Your task to perform on an android device: delete browsing data in the chrome app Image 0: 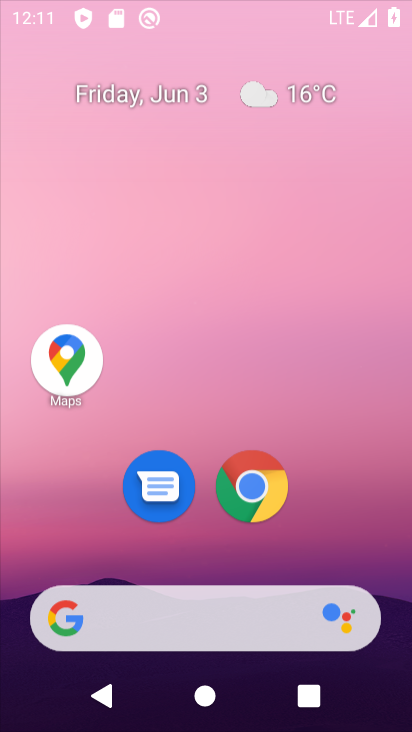
Step 0: click (385, 218)
Your task to perform on an android device: delete browsing data in the chrome app Image 1: 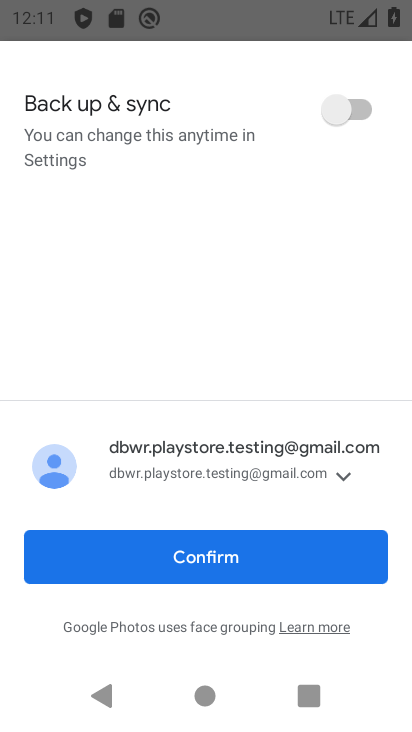
Step 1: press home button
Your task to perform on an android device: delete browsing data in the chrome app Image 2: 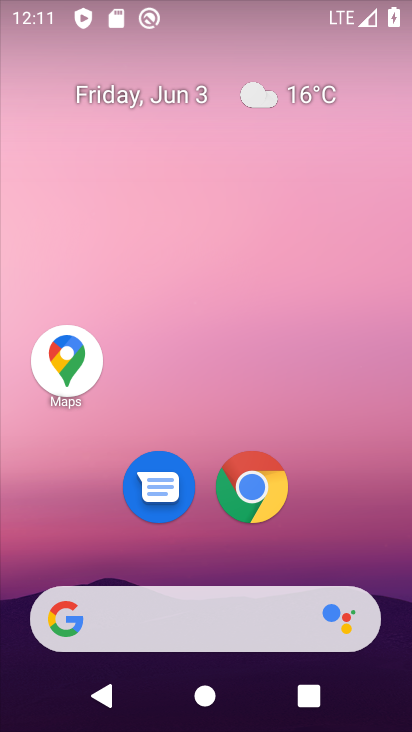
Step 2: click (242, 499)
Your task to perform on an android device: delete browsing data in the chrome app Image 3: 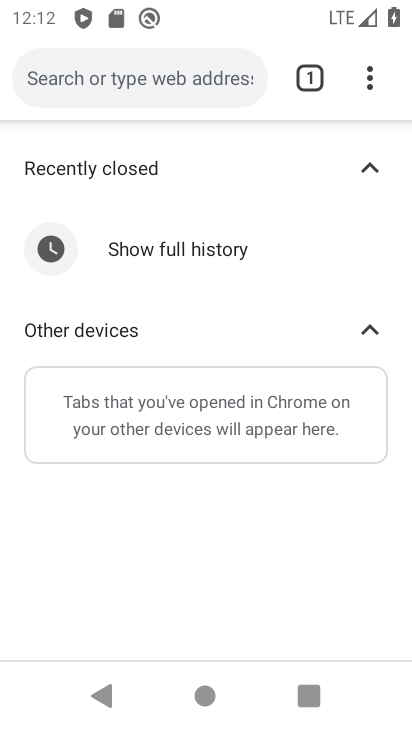
Step 3: press back button
Your task to perform on an android device: delete browsing data in the chrome app Image 4: 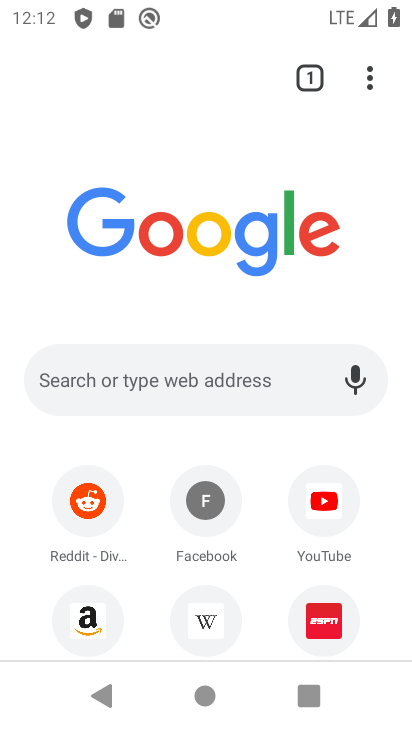
Step 4: click (365, 68)
Your task to perform on an android device: delete browsing data in the chrome app Image 5: 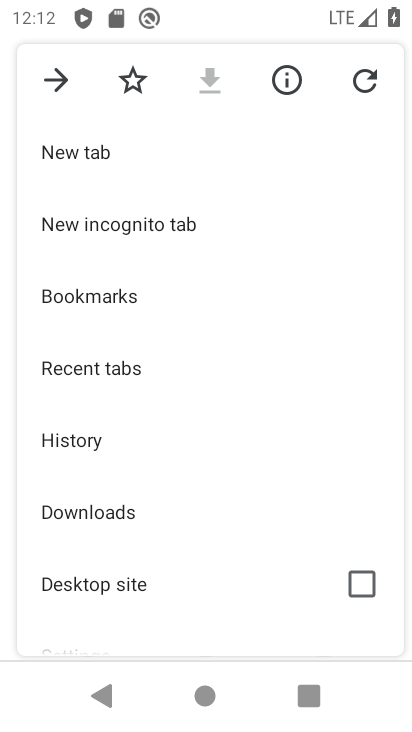
Step 5: click (63, 434)
Your task to perform on an android device: delete browsing data in the chrome app Image 6: 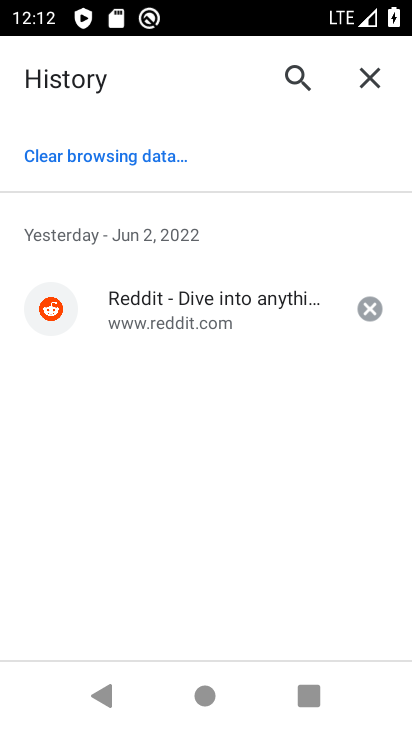
Step 6: click (121, 152)
Your task to perform on an android device: delete browsing data in the chrome app Image 7: 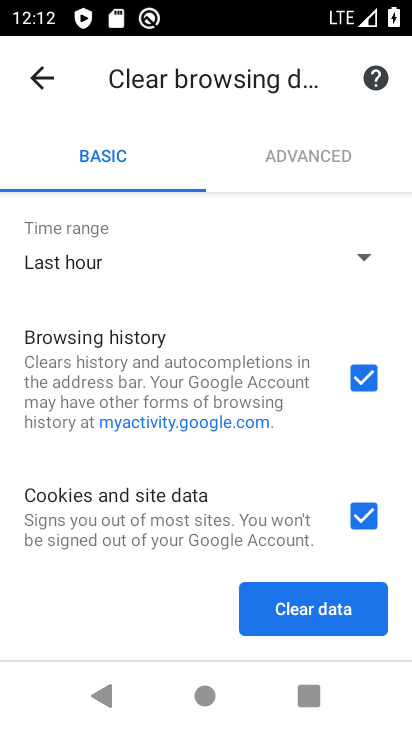
Step 7: click (375, 524)
Your task to perform on an android device: delete browsing data in the chrome app Image 8: 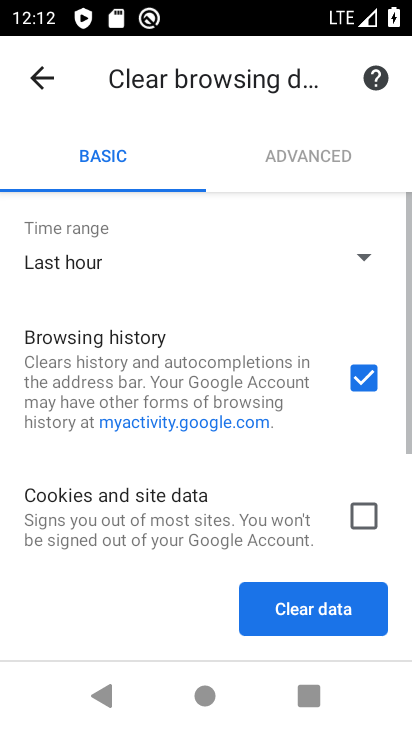
Step 8: drag from (106, 556) to (83, 253)
Your task to perform on an android device: delete browsing data in the chrome app Image 9: 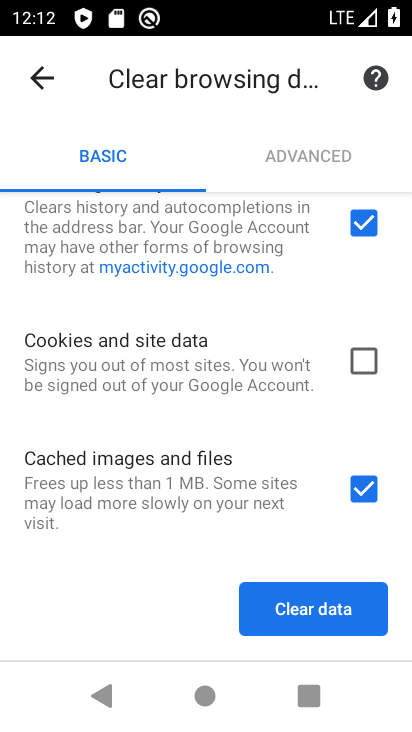
Step 9: click (360, 491)
Your task to perform on an android device: delete browsing data in the chrome app Image 10: 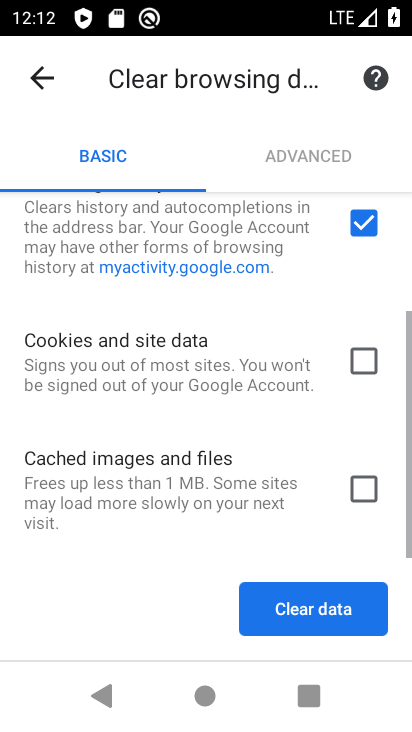
Step 10: drag from (121, 515) to (98, 331)
Your task to perform on an android device: delete browsing data in the chrome app Image 11: 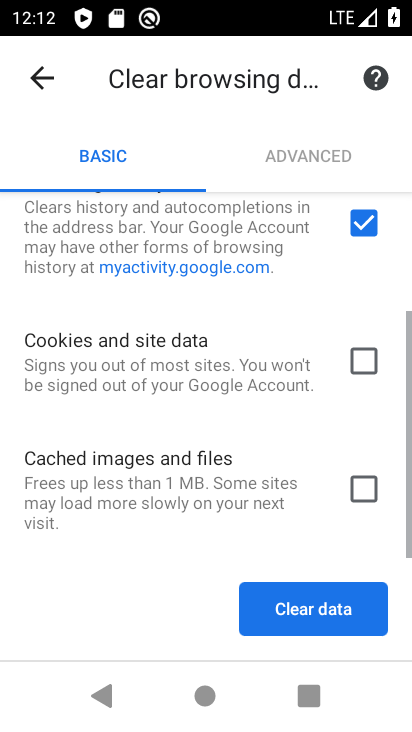
Step 11: drag from (127, 292) to (113, 435)
Your task to perform on an android device: delete browsing data in the chrome app Image 12: 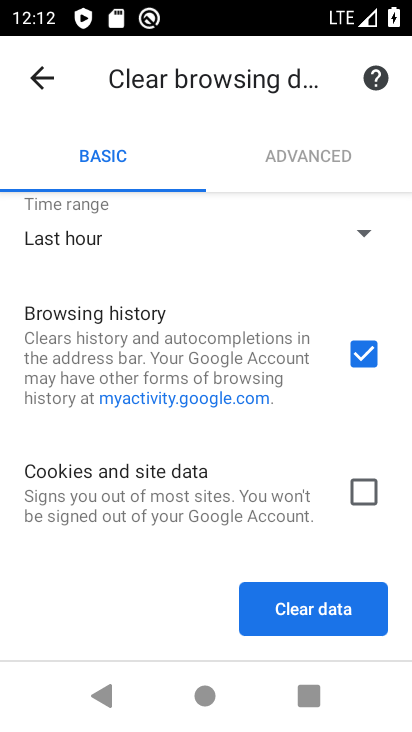
Step 12: click (329, 615)
Your task to perform on an android device: delete browsing data in the chrome app Image 13: 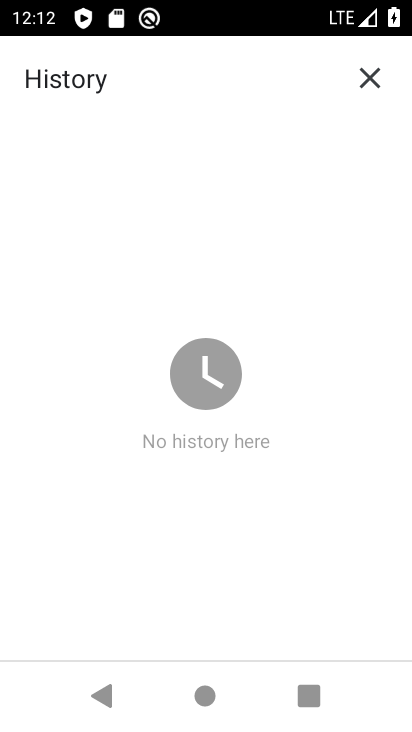
Step 13: task complete